Your task to perform on an android device: remove spam from my inbox in the gmail app Image 0: 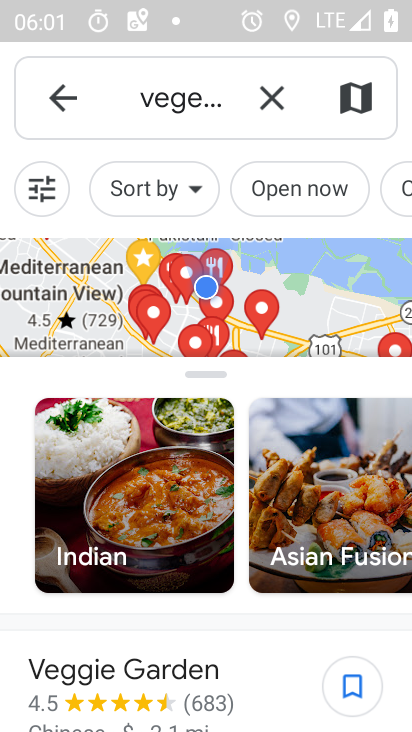
Step 0: press home button
Your task to perform on an android device: remove spam from my inbox in the gmail app Image 1: 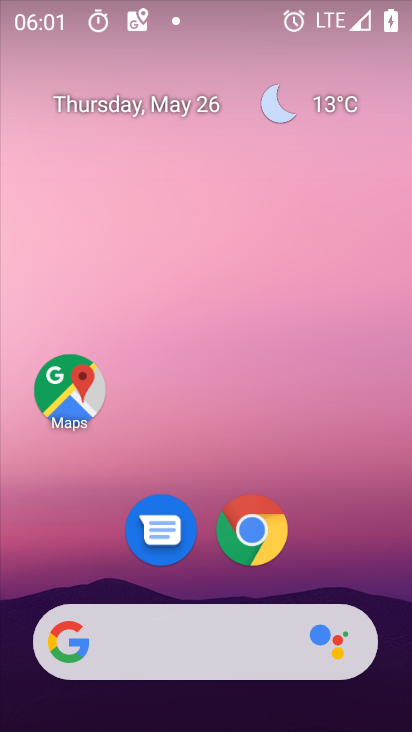
Step 1: drag from (287, 658) to (317, 7)
Your task to perform on an android device: remove spam from my inbox in the gmail app Image 2: 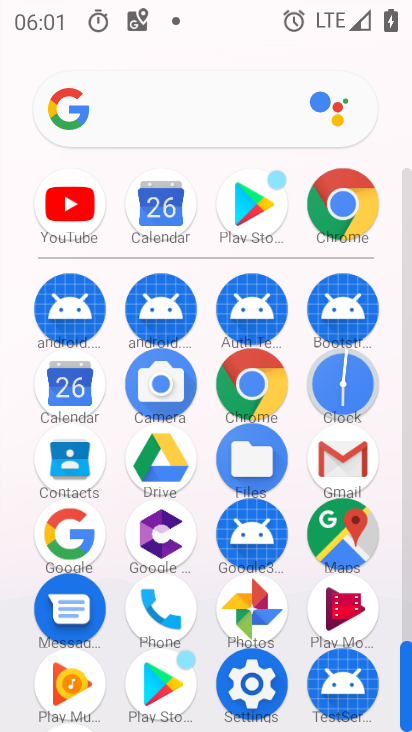
Step 2: click (323, 467)
Your task to perform on an android device: remove spam from my inbox in the gmail app Image 3: 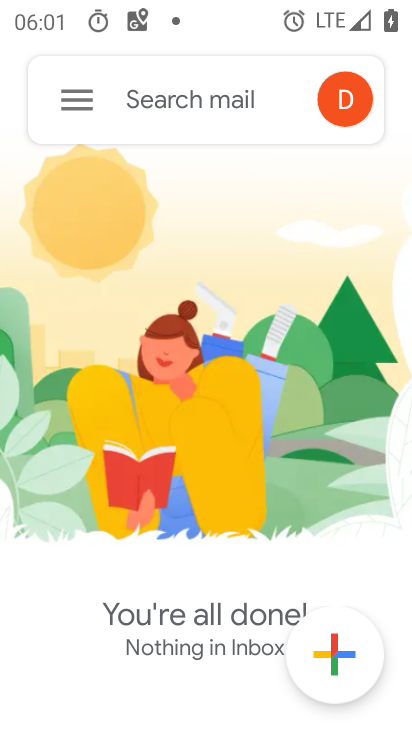
Step 3: click (87, 96)
Your task to perform on an android device: remove spam from my inbox in the gmail app Image 4: 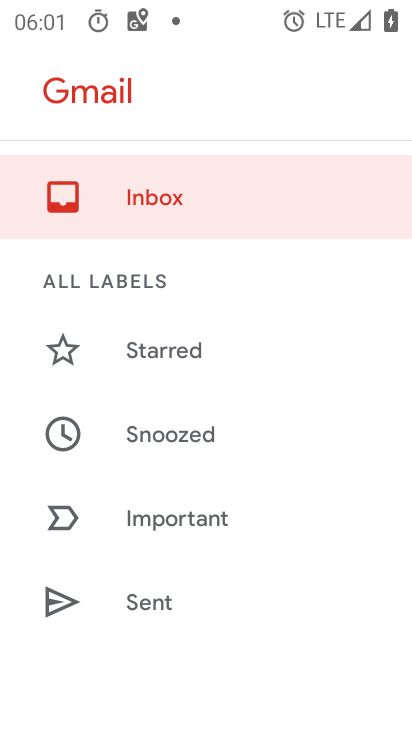
Step 4: drag from (203, 642) to (239, 137)
Your task to perform on an android device: remove spam from my inbox in the gmail app Image 5: 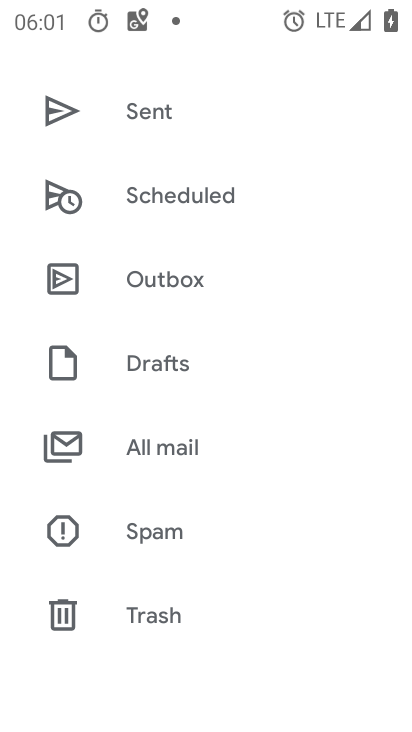
Step 5: click (180, 543)
Your task to perform on an android device: remove spam from my inbox in the gmail app Image 6: 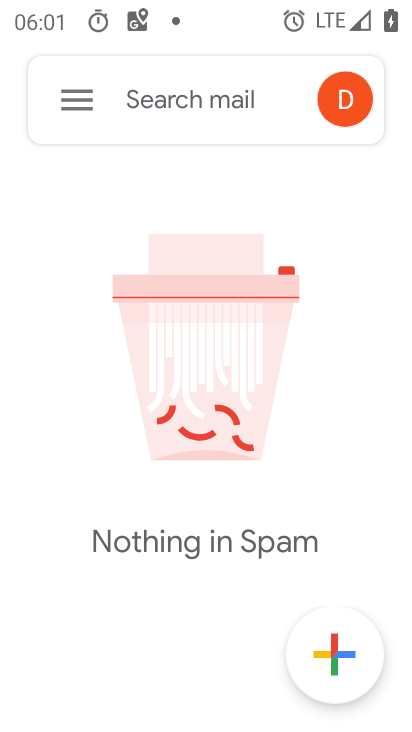
Step 6: task complete